Your task to perform on an android device: check the backup settings in the google photos Image 0: 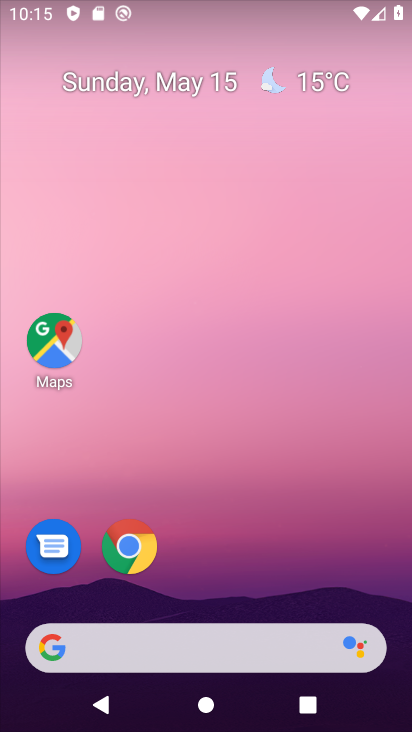
Step 0: drag from (238, 598) to (244, 160)
Your task to perform on an android device: check the backup settings in the google photos Image 1: 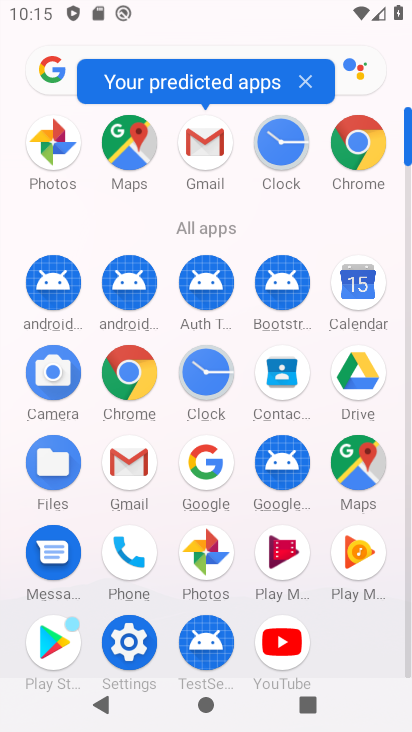
Step 1: click (63, 144)
Your task to perform on an android device: check the backup settings in the google photos Image 2: 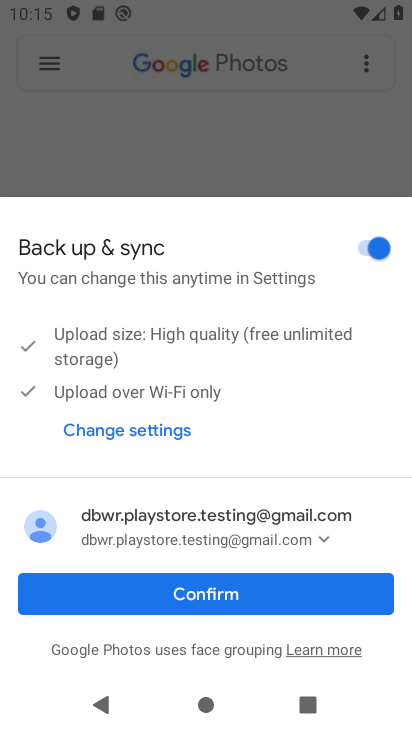
Step 2: click (245, 602)
Your task to perform on an android device: check the backup settings in the google photos Image 3: 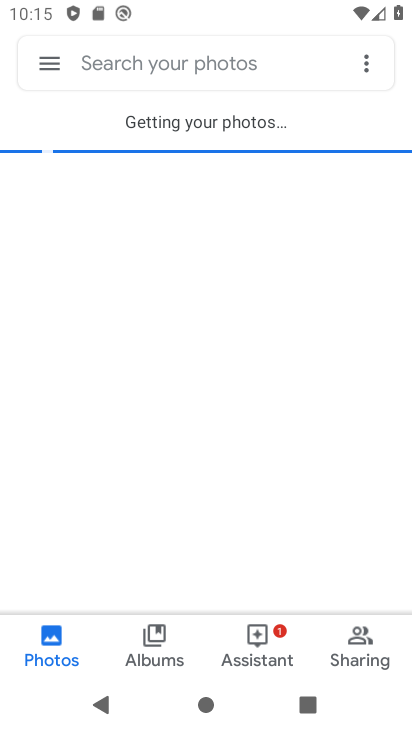
Step 3: click (58, 72)
Your task to perform on an android device: check the backup settings in the google photos Image 4: 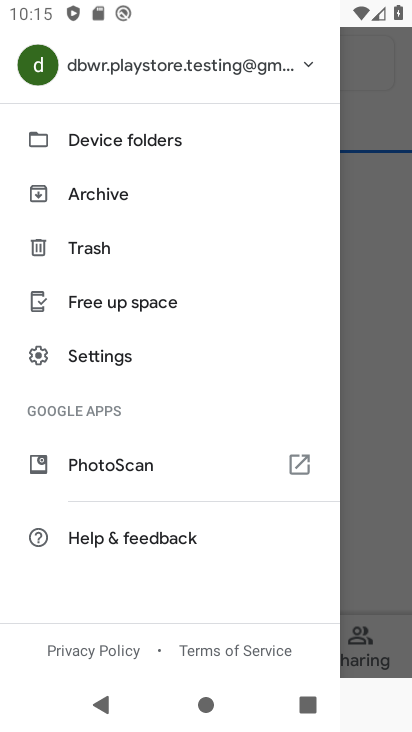
Step 4: click (170, 367)
Your task to perform on an android device: check the backup settings in the google photos Image 5: 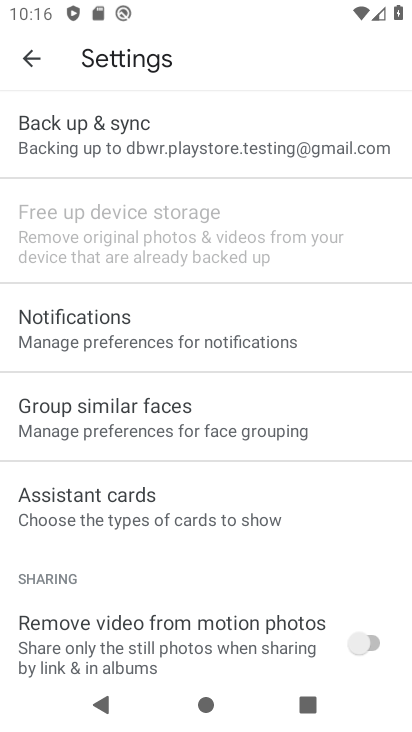
Step 5: click (189, 143)
Your task to perform on an android device: check the backup settings in the google photos Image 6: 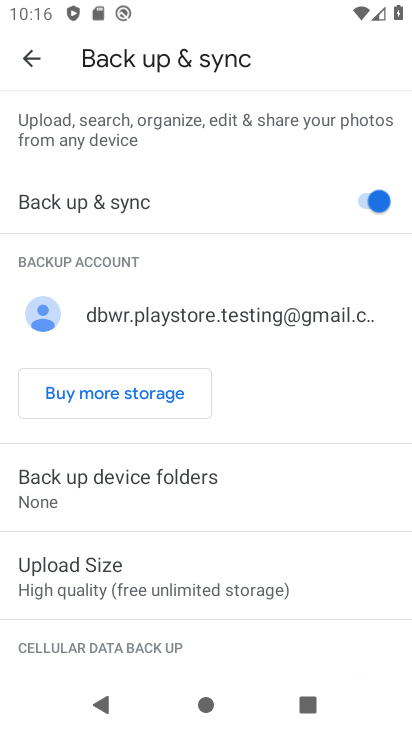
Step 6: task complete